Your task to perform on an android device: Search for Italian restaurants on Maps Image 0: 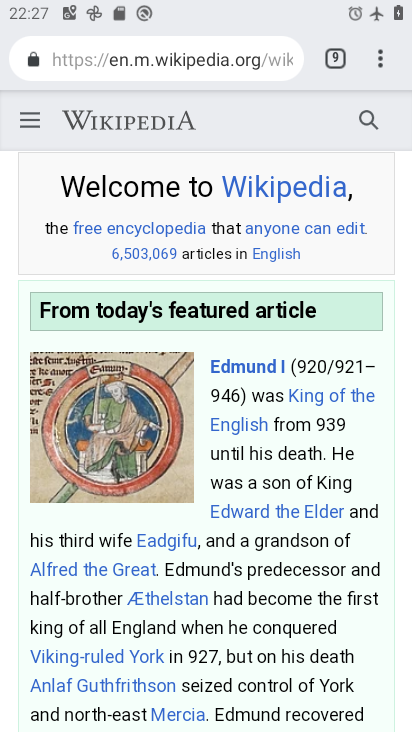
Step 0: press home button
Your task to perform on an android device: Search for Italian restaurants on Maps Image 1: 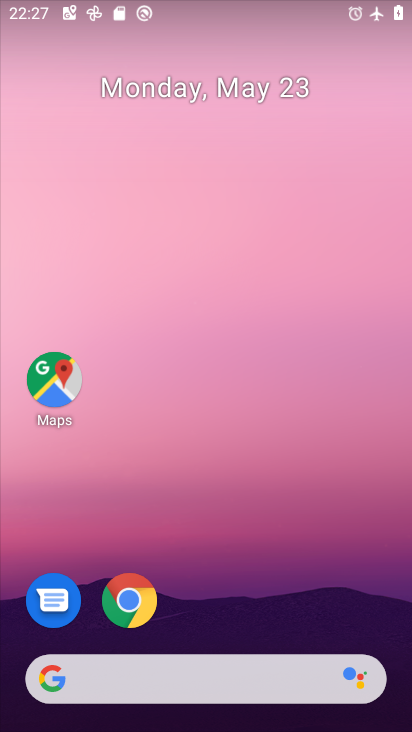
Step 1: drag from (221, 727) to (193, 24)
Your task to perform on an android device: Search for Italian restaurants on Maps Image 2: 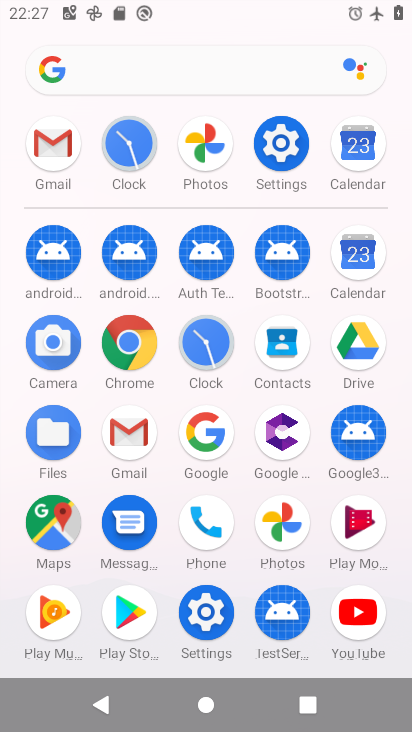
Step 2: click (51, 524)
Your task to perform on an android device: Search for Italian restaurants on Maps Image 3: 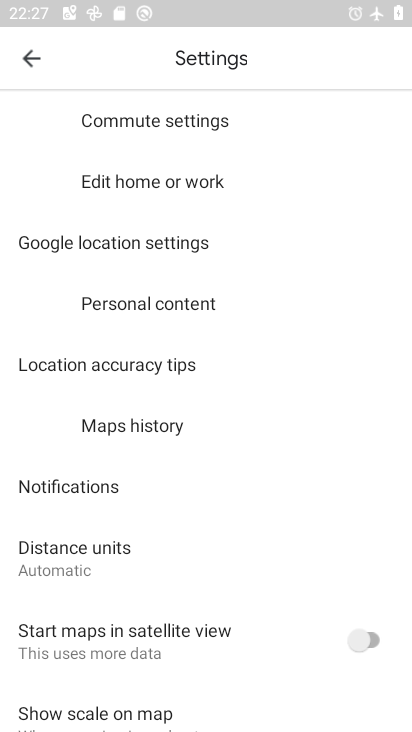
Step 3: click (26, 57)
Your task to perform on an android device: Search for Italian restaurants on Maps Image 4: 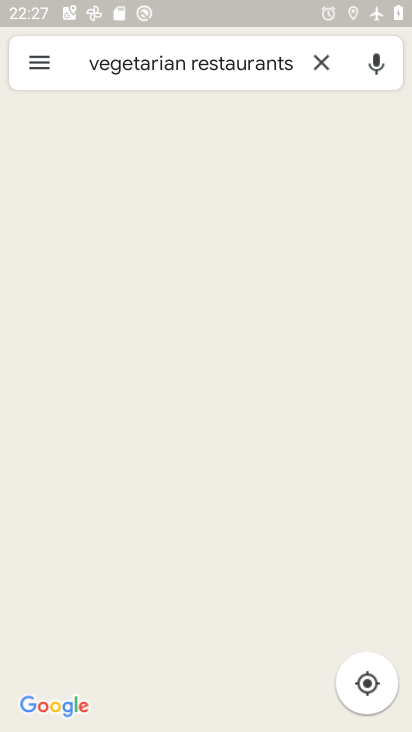
Step 4: click (30, 55)
Your task to perform on an android device: Search for Italian restaurants on Maps Image 5: 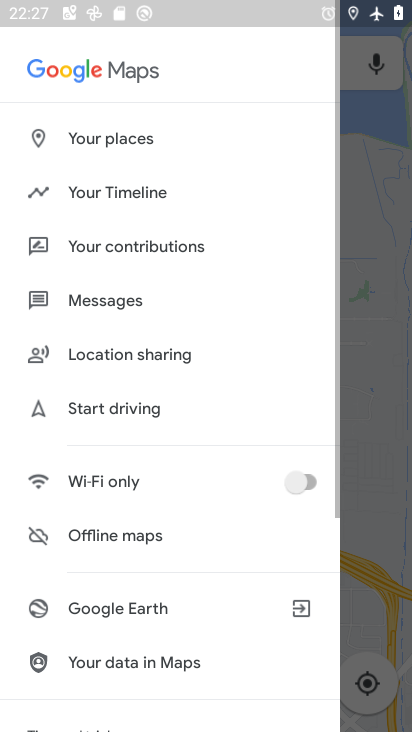
Step 5: click (317, 62)
Your task to perform on an android device: Search for Italian restaurants on Maps Image 6: 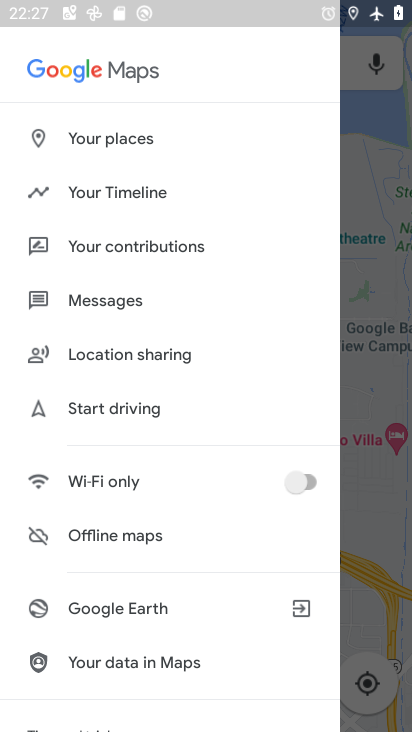
Step 6: click (352, 75)
Your task to perform on an android device: Search for Italian restaurants on Maps Image 7: 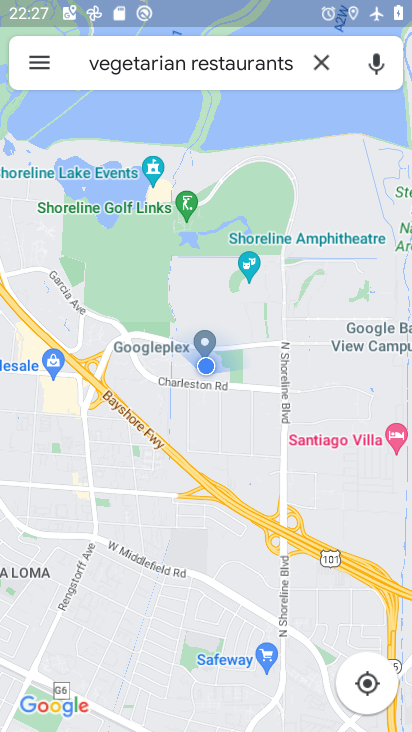
Step 7: click (192, 66)
Your task to perform on an android device: Search for Italian restaurants on Maps Image 8: 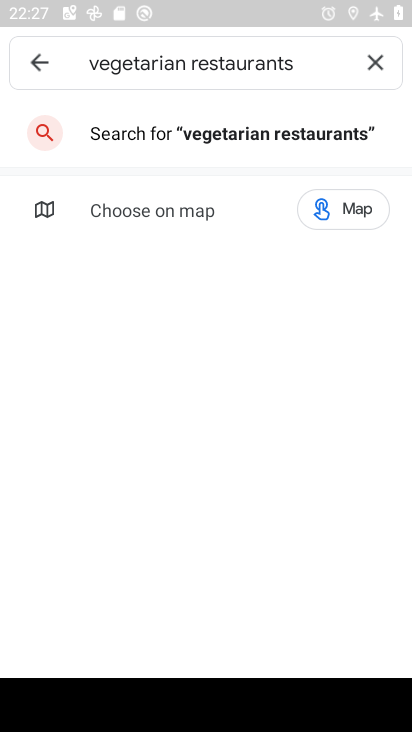
Step 8: click (372, 60)
Your task to perform on an android device: Search for Italian restaurants on Maps Image 9: 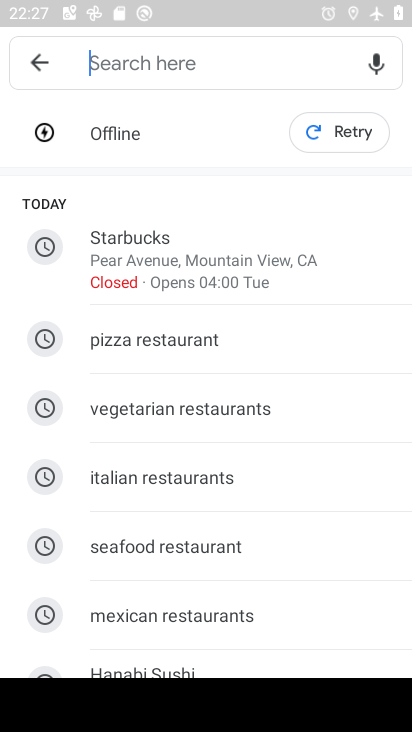
Step 9: type "italian restaurants"
Your task to perform on an android device: Search for Italian restaurants on Maps Image 10: 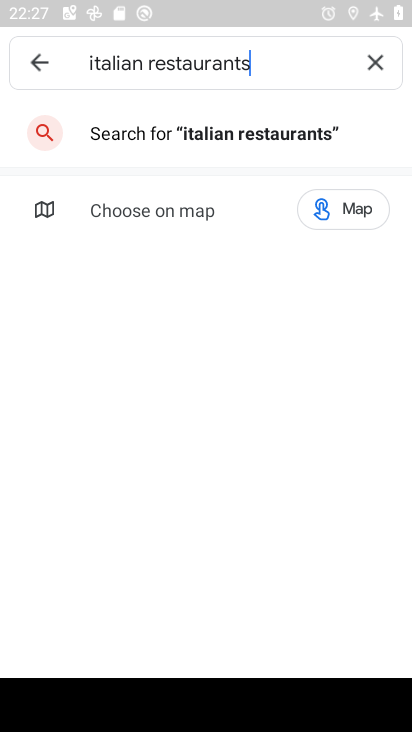
Step 10: click (227, 135)
Your task to perform on an android device: Search for Italian restaurants on Maps Image 11: 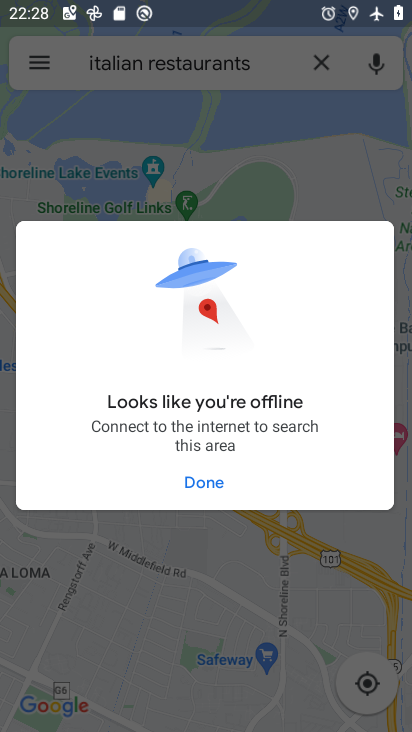
Step 11: click (211, 483)
Your task to perform on an android device: Search for Italian restaurants on Maps Image 12: 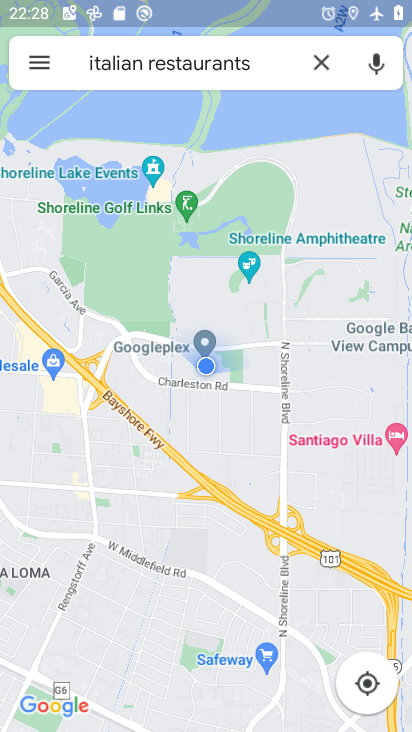
Step 12: task complete